Your task to perform on an android device: What's the weather going to be tomorrow? Image 0: 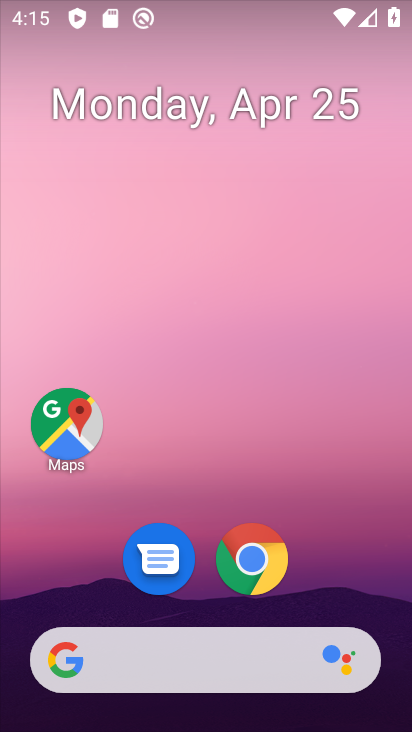
Step 0: drag from (208, 469) to (229, 18)
Your task to perform on an android device: What's the weather going to be tomorrow? Image 1: 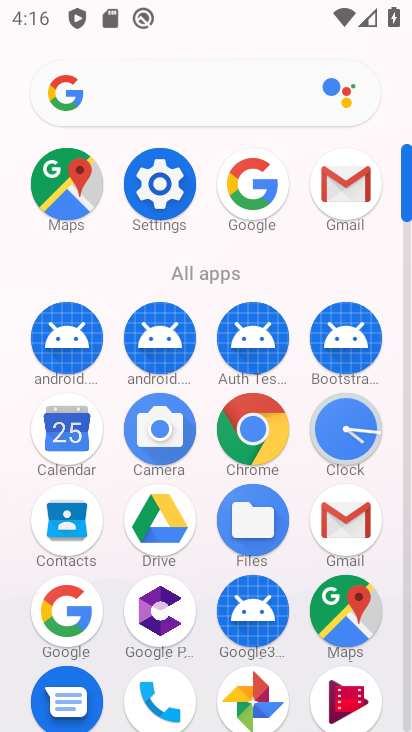
Step 1: click (247, 181)
Your task to perform on an android device: What's the weather going to be tomorrow? Image 2: 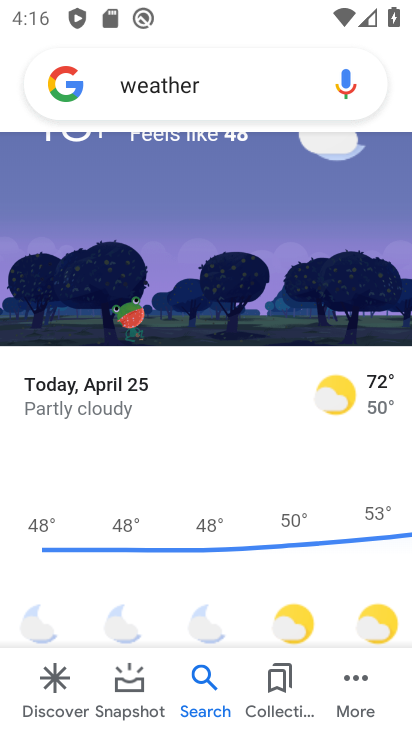
Step 2: drag from (199, 198) to (215, 519)
Your task to perform on an android device: What's the weather going to be tomorrow? Image 3: 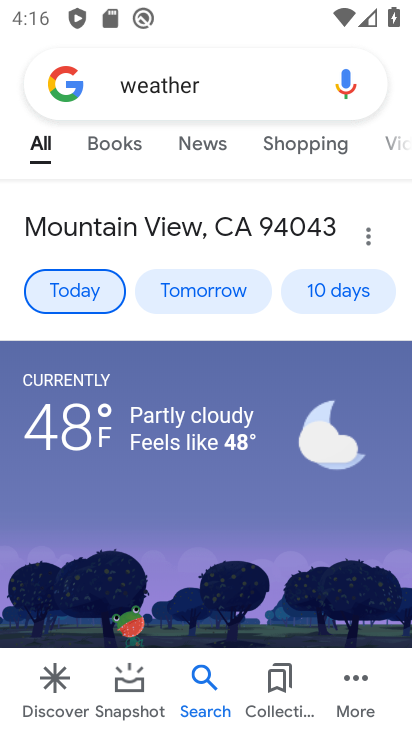
Step 3: click (203, 284)
Your task to perform on an android device: What's the weather going to be tomorrow? Image 4: 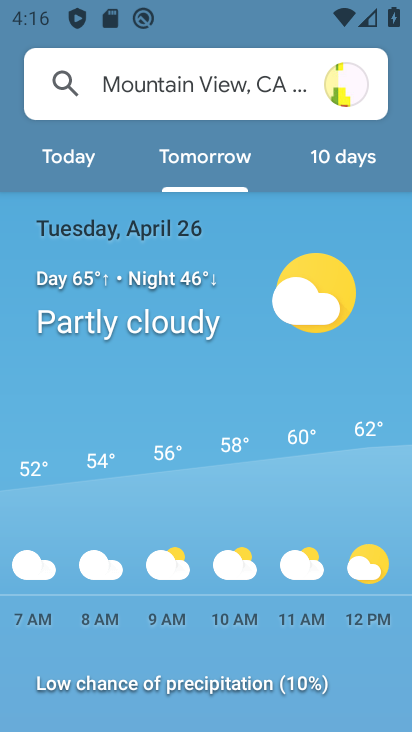
Step 4: task complete